Your task to perform on an android device: turn on the 12-hour format for clock Image 0: 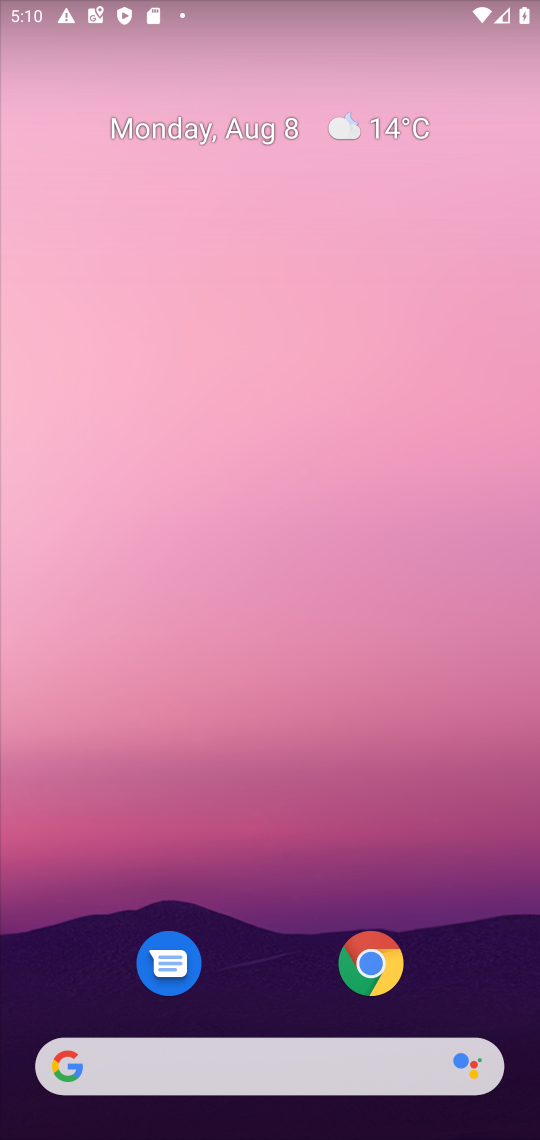
Step 0: drag from (284, 873) to (284, 367)
Your task to perform on an android device: turn on the 12-hour format for clock Image 1: 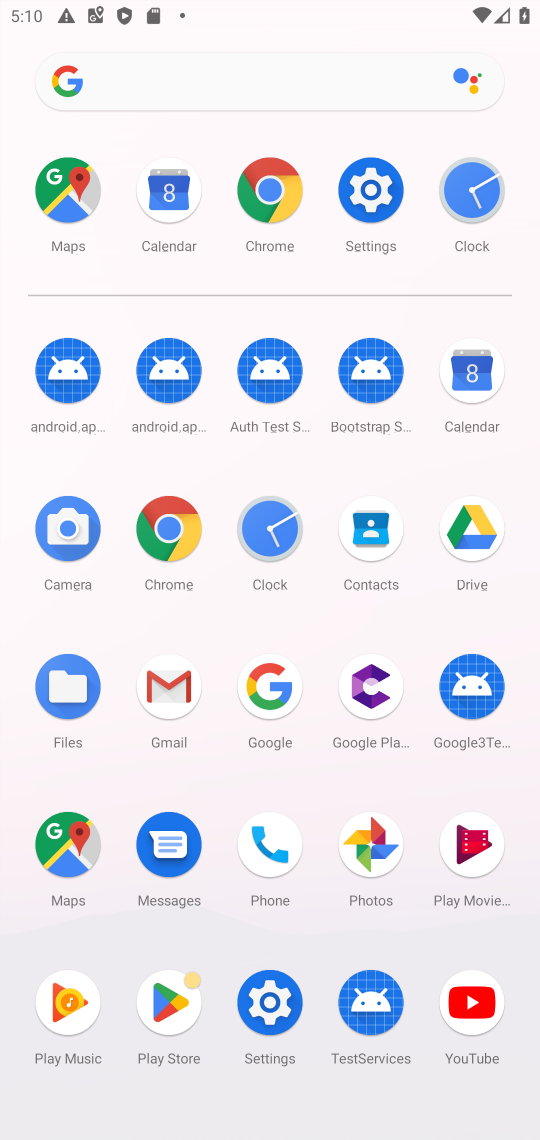
Step 1: click (466, 185)
Your task to perform on an android device: turn on the 12-hour format for clock Image 2: 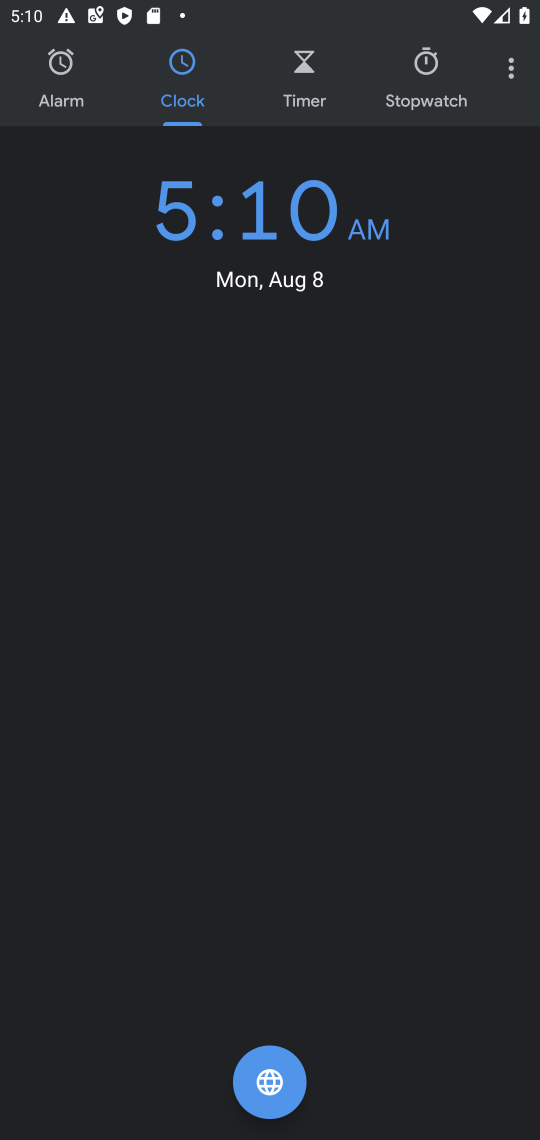
Step 2: click (501, 64)
Your task to perform on an android device: turn on the 12-hour format for clock Image 3: 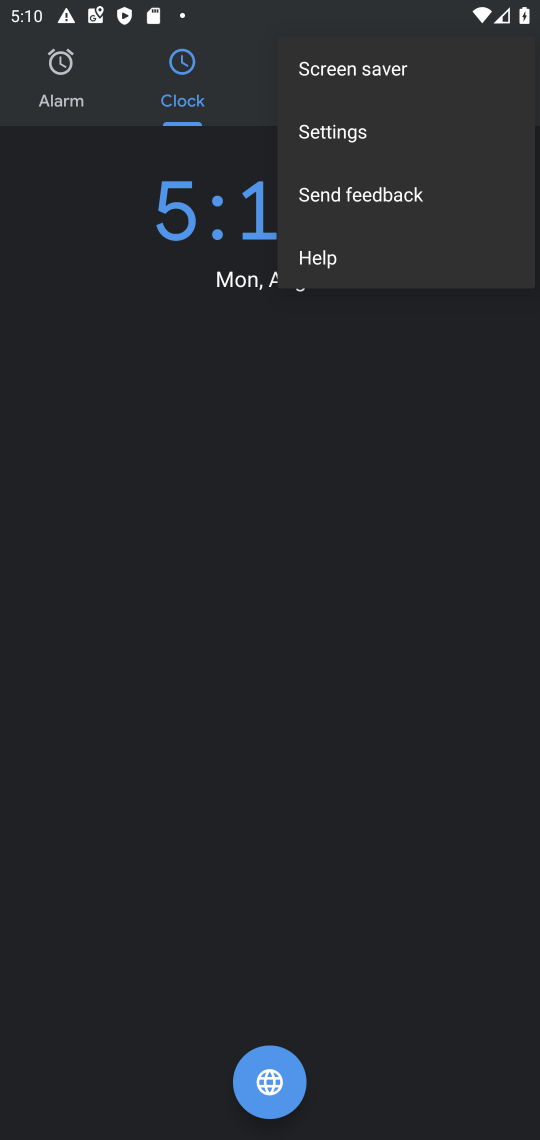
Step 3: click (422, 121)
Your task to perform on an android device: turn on the 12-hour format for clock Image 4: 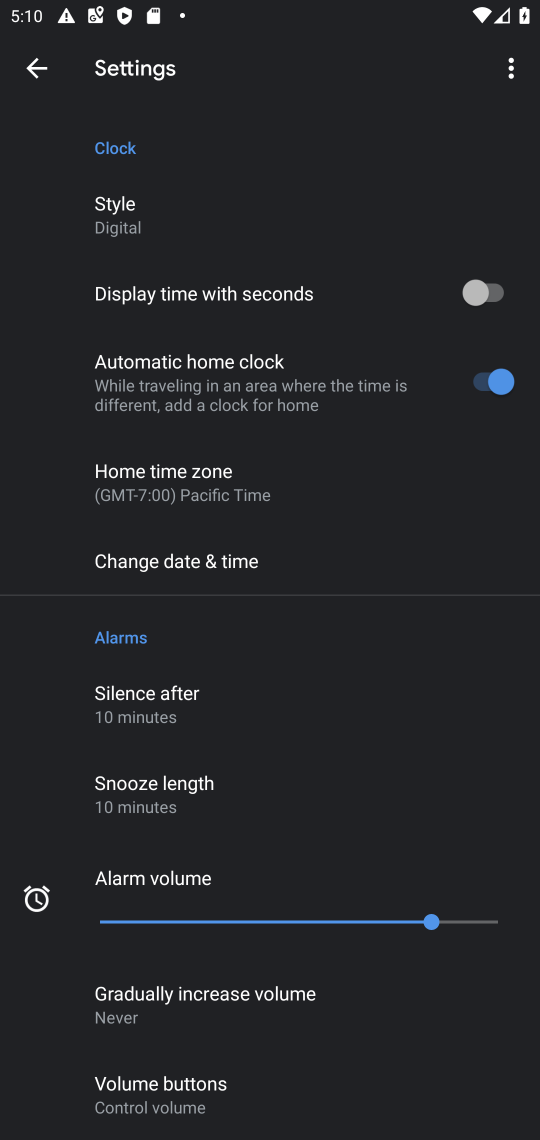
Step 4: click (158, 566)
Your task to perform on an android device: turn on the 12-hour format for clock Image 5: 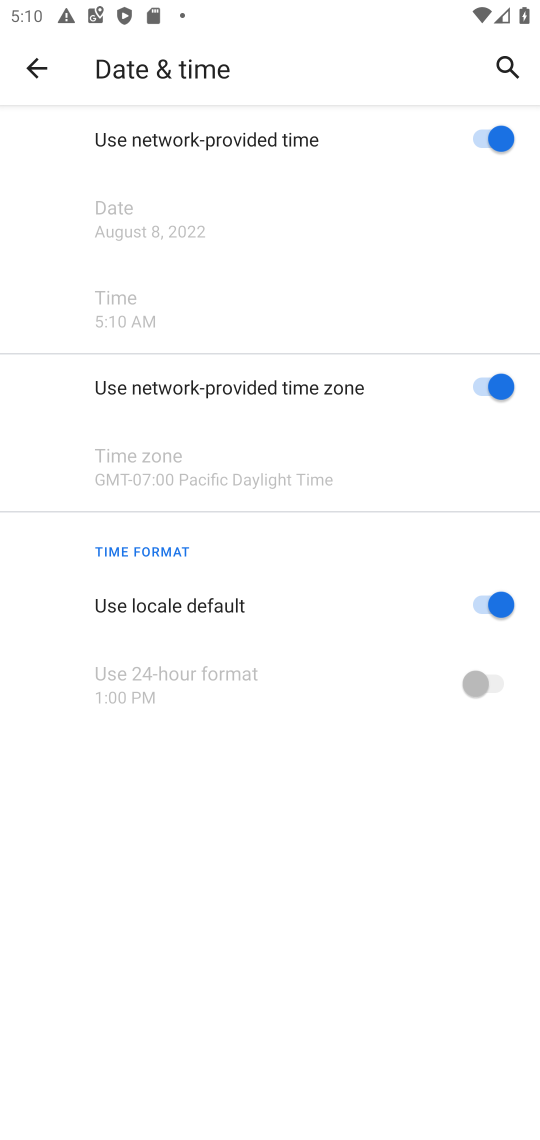
Step 5: task complete